Your task to perform on an android device: open app "WhatsApp Messenger" Image 0: 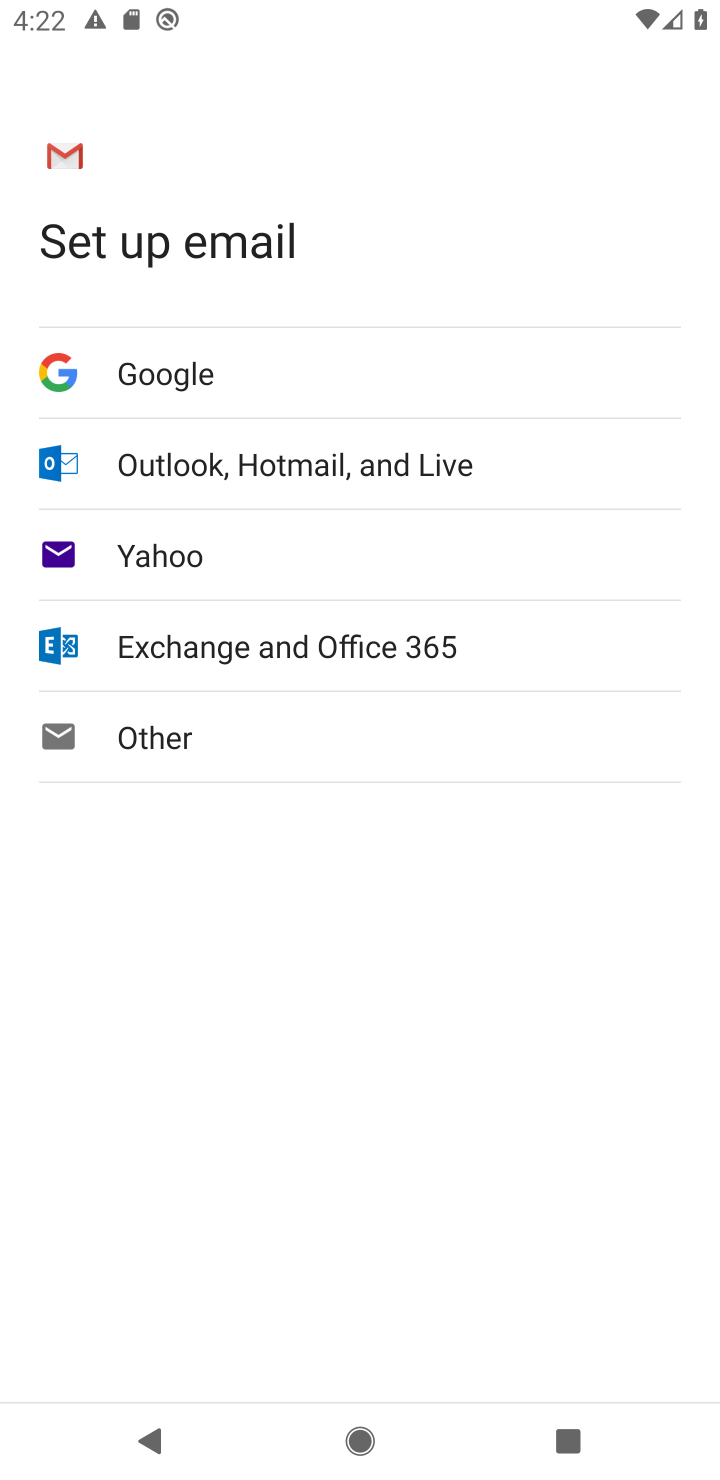
Step 0: press back button
Your task to perform on an android device: open app "WhatsApp Messenger" Image 1: 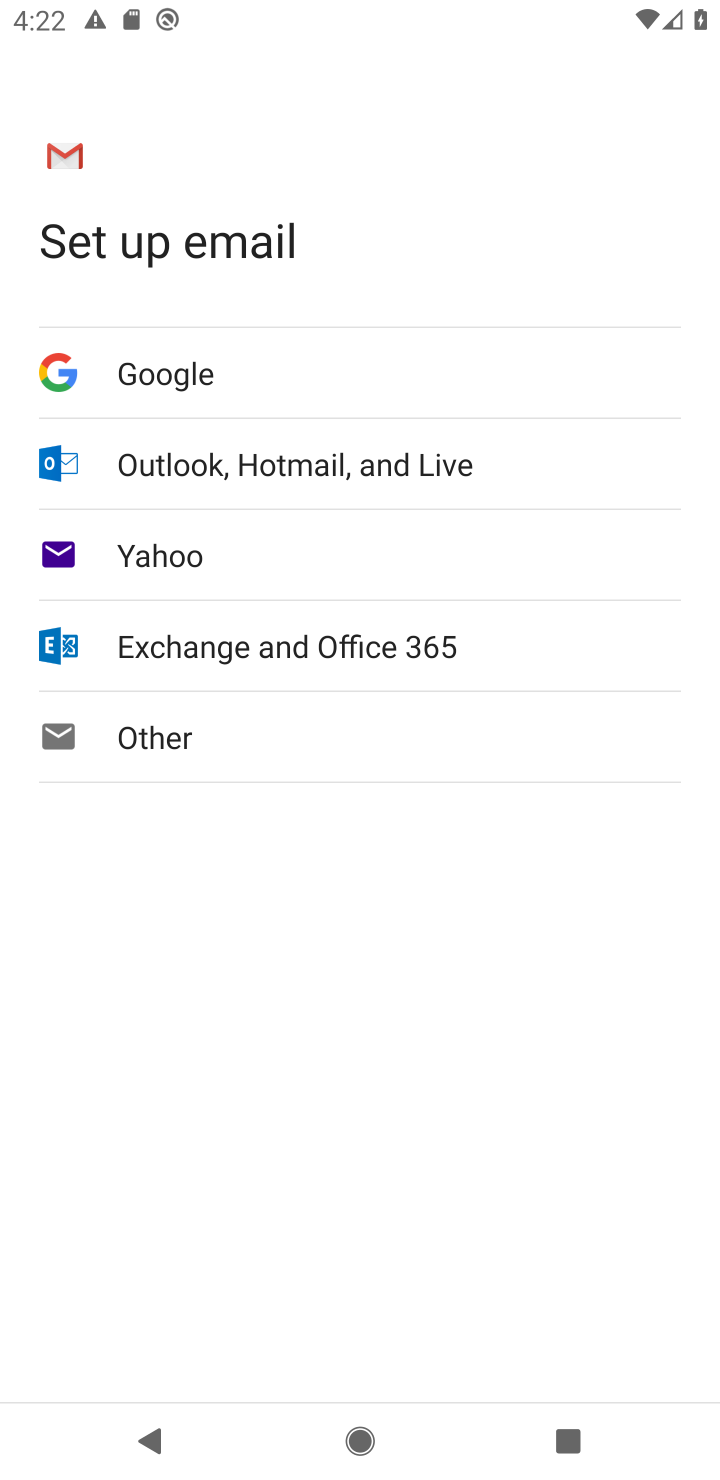
Step 1: press back button
Your task to perform on an android device: open app "WhatsApp Messenger" Image 2: 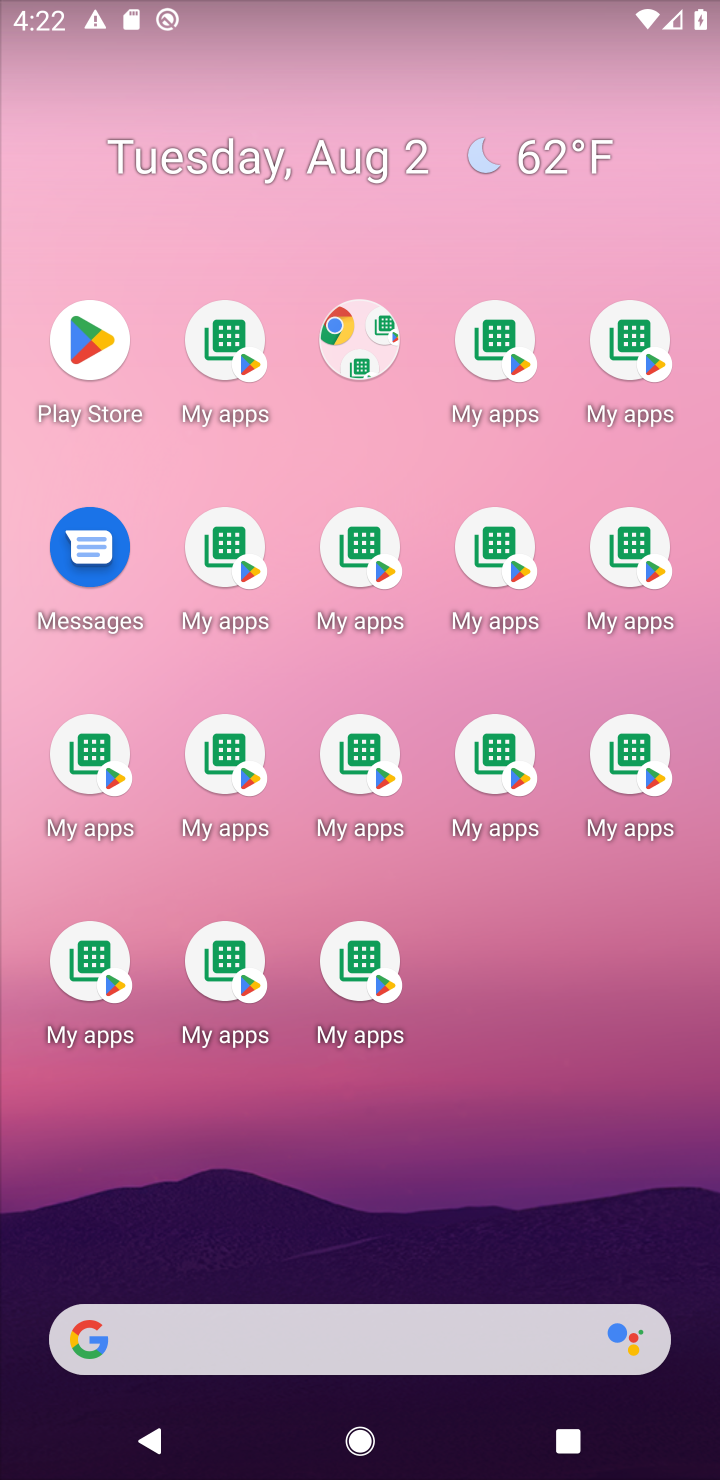
Step 2: drag from (94, 350) to (612, 202)
Your task to perform on an android device: open app "WhatsApp Messenger" Image 3: 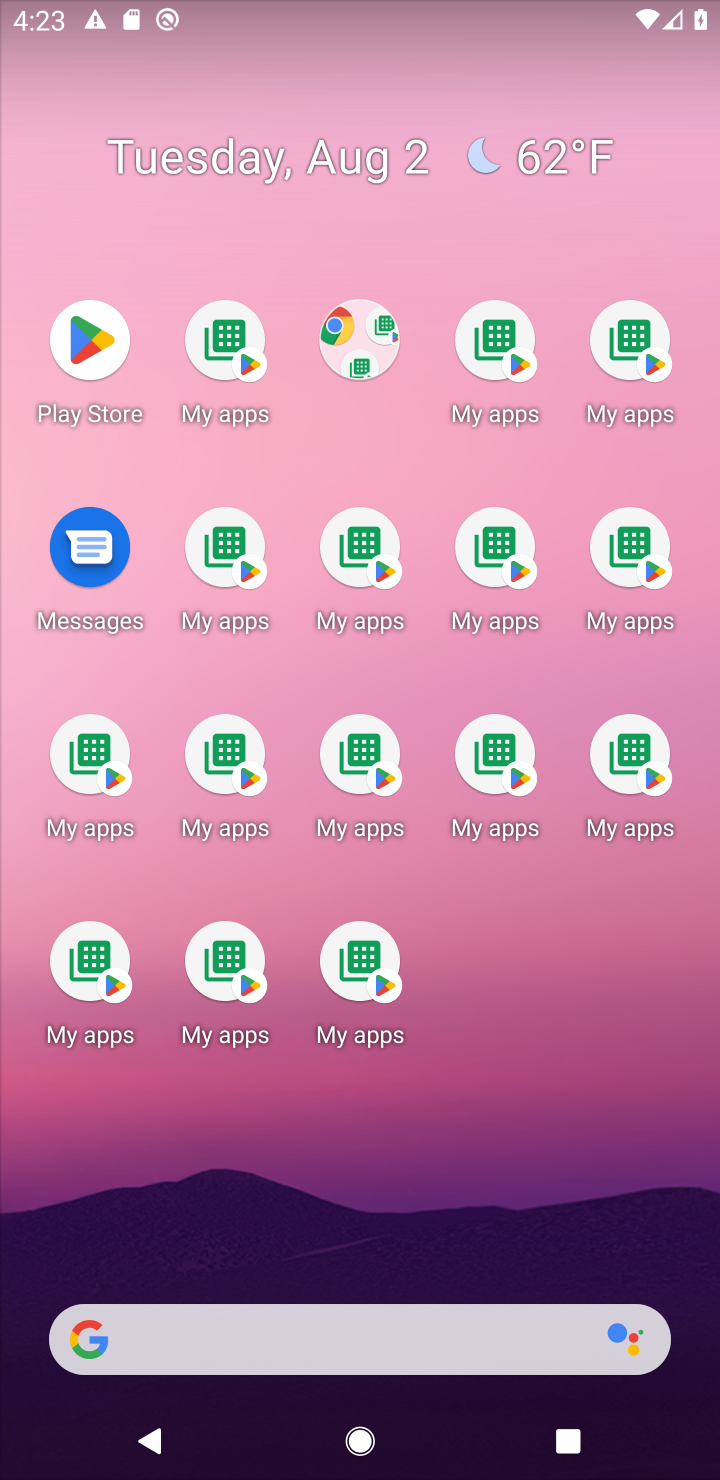
Step 3: drag from (364, 1154) to (386, 182)
Your task to perform on an android device: open app "WhatsApp Messenger" Image 4: 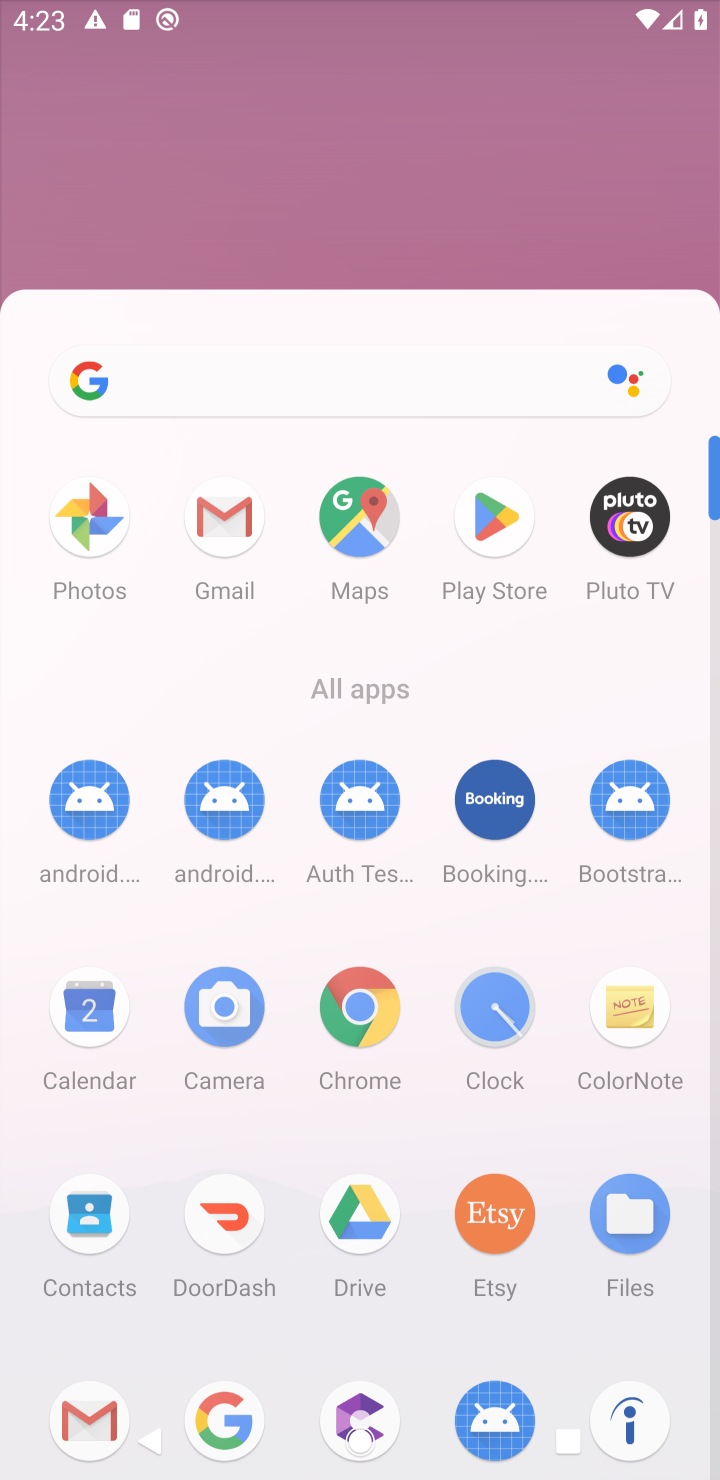
Step 4: drag from (458, 123) to (329, 30)
Your task to perform on an android device: open app "WhatsApp Messenger" Image 5: 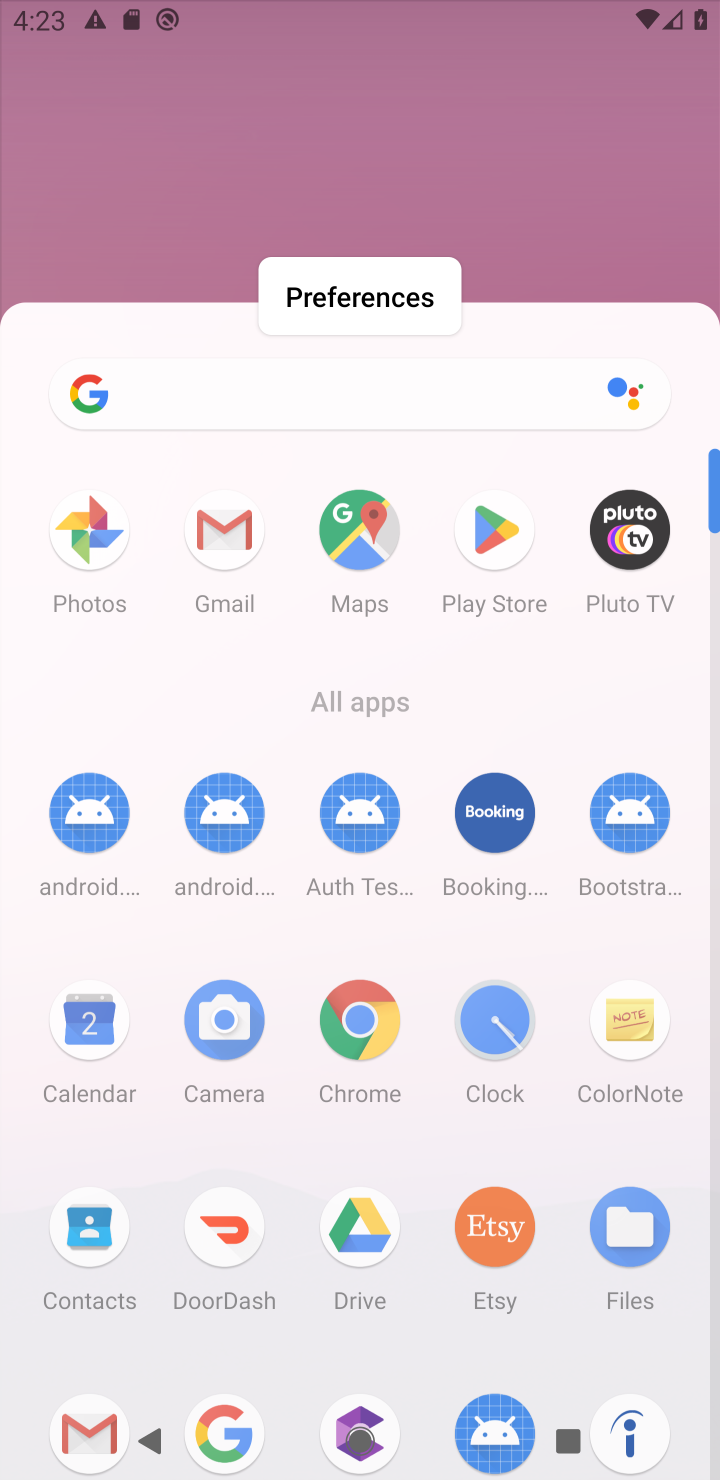
Step 5: click (488, 241)
Your task to perform on an android device: open app "WhatsApp Messenger" Image 6: 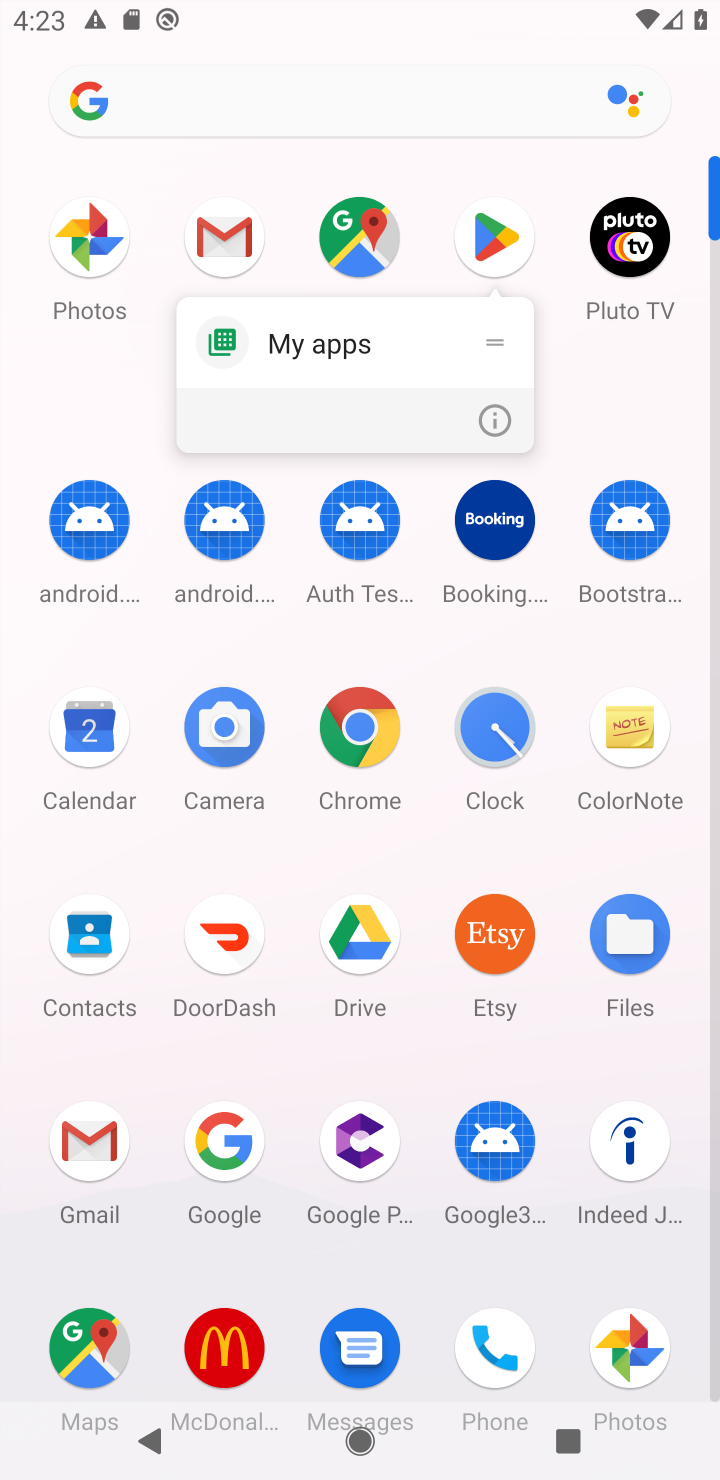
Step 6: click (404, 343)
Your task to perform on an android device: open app "WhatsApp Messenger" Image 7: 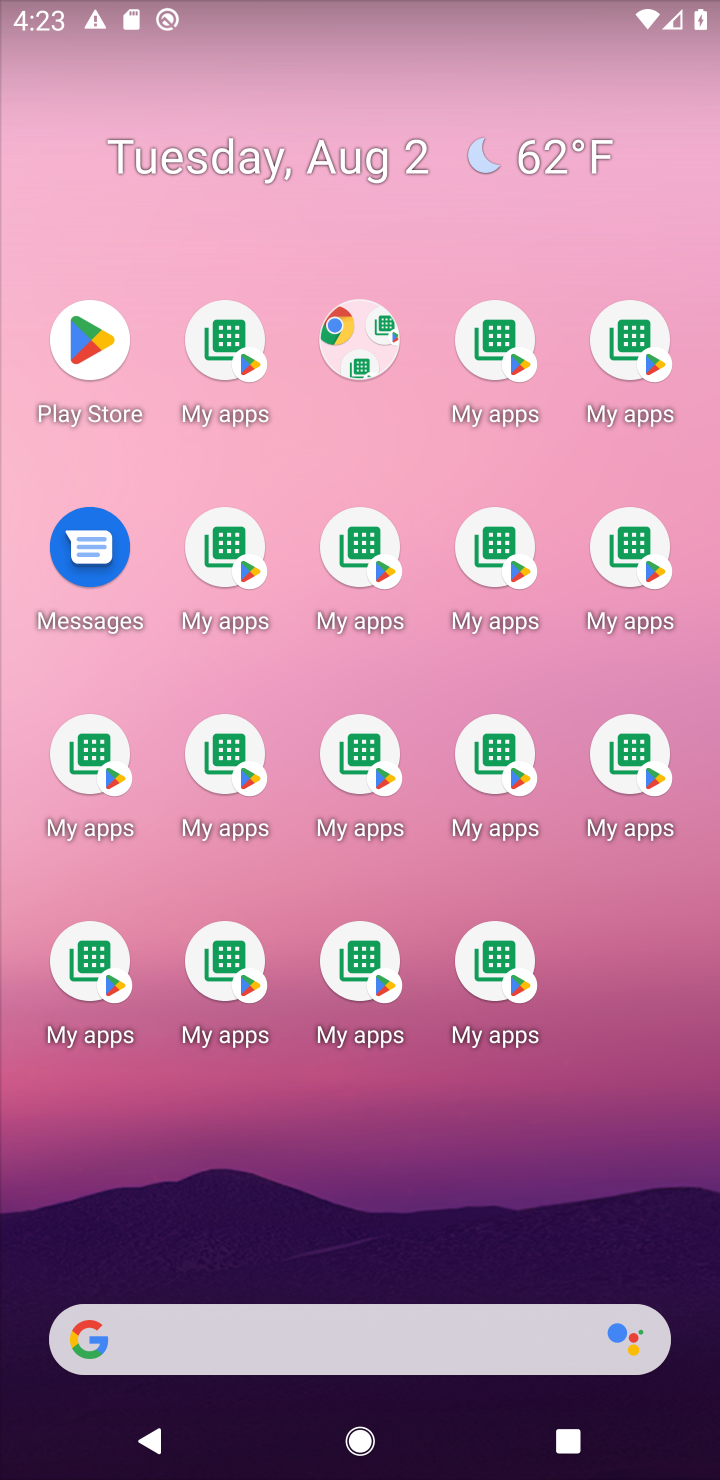
Step 7: click (108, 362)
Your task to perform on an android device: open app "WhatsApp Messenger" Image 8: 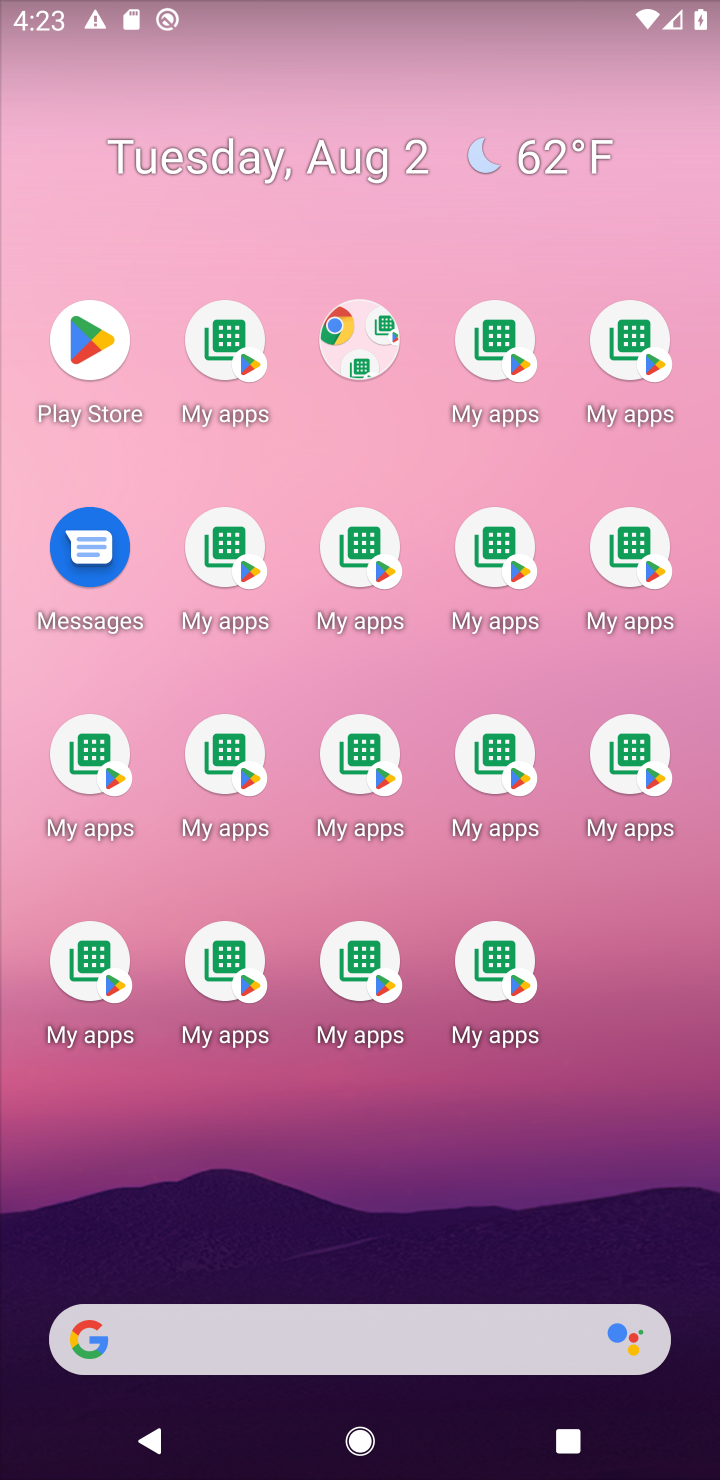
Step 8: click (63, 340)
Your task to perform on an android device: open app "WhatsApp Messenger" Image 9: 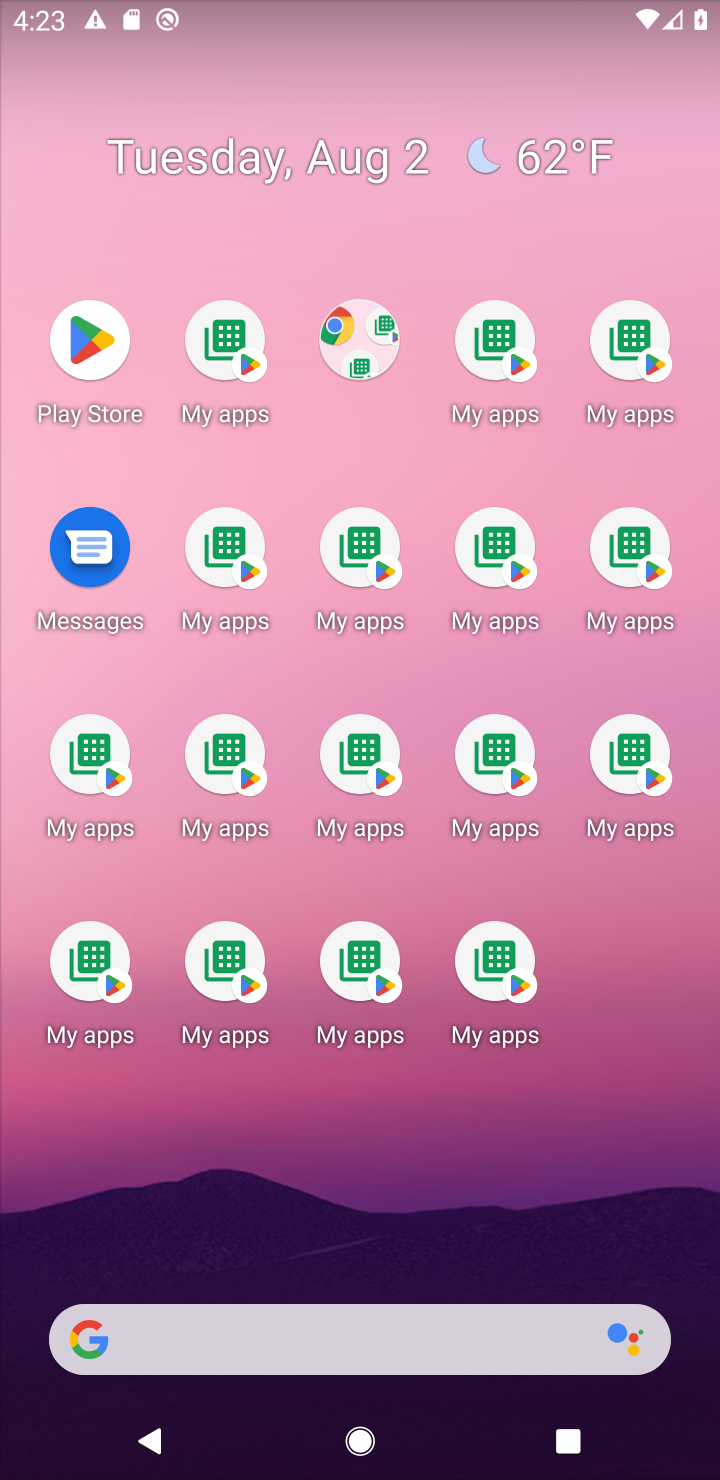
Step 9: click (80, 345)
Your task to perform on an android device: open app "WhatsApp Messenger" Image 10: 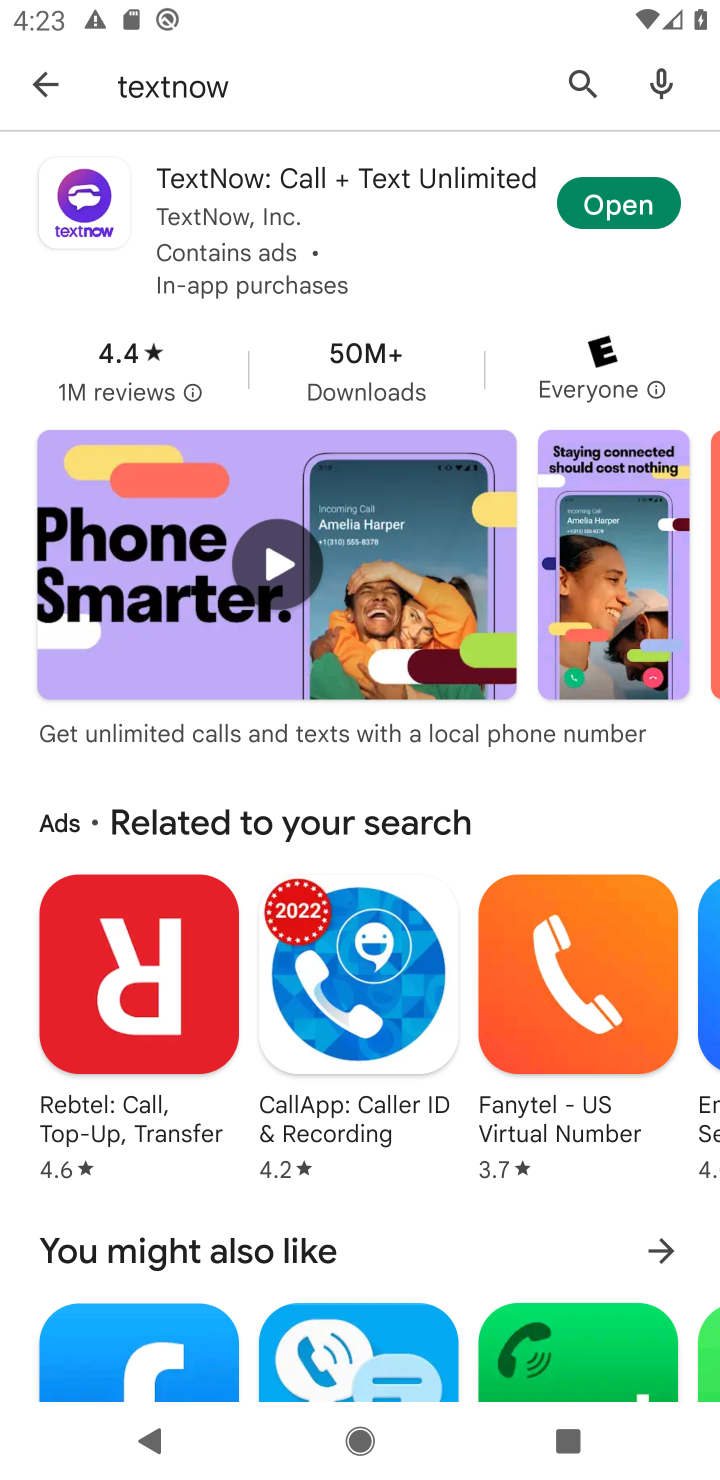
Step 10: click (576, 80)
Your task to perform on an android device: open app "WhatsApp Messenger" Image 11: 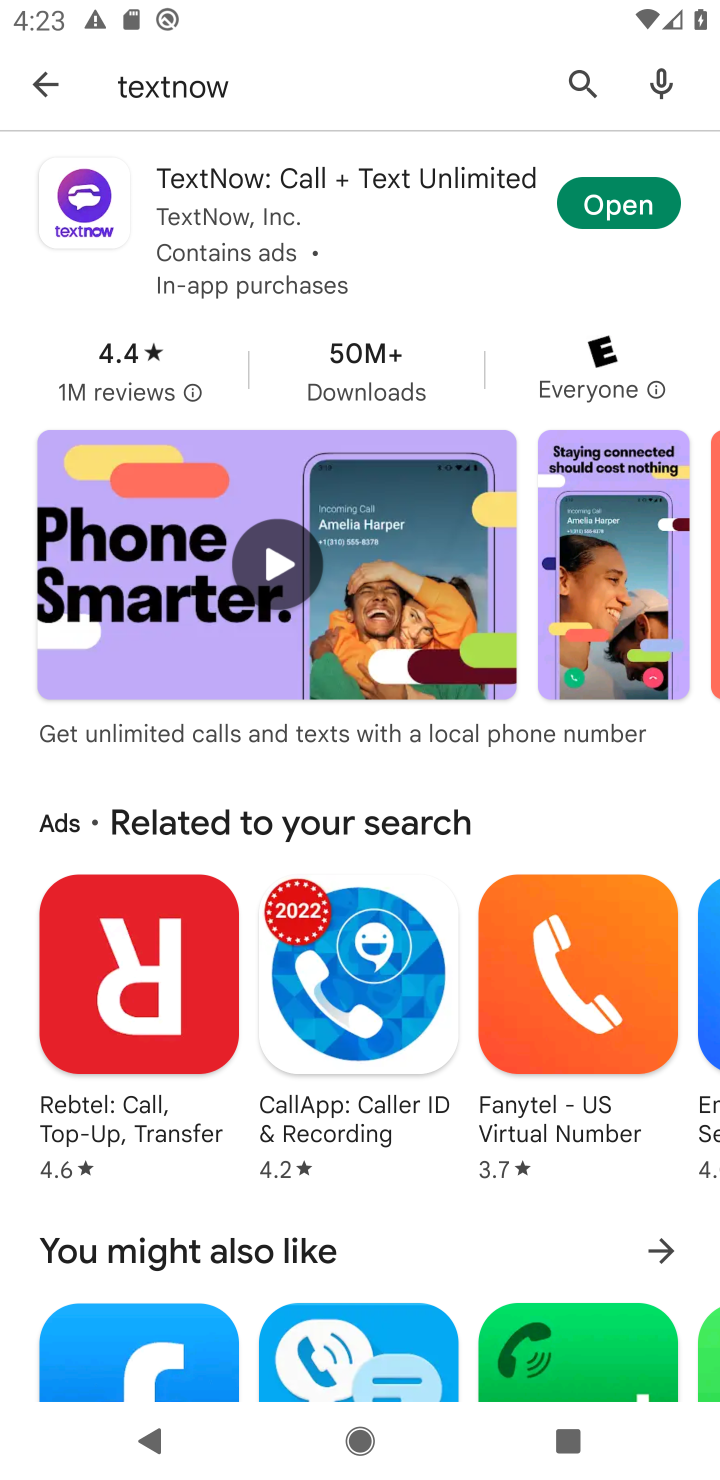
Step 11: click (579, 80)
Your task to perform on an android device: open app "WhatsApp Messenger" Image 12: 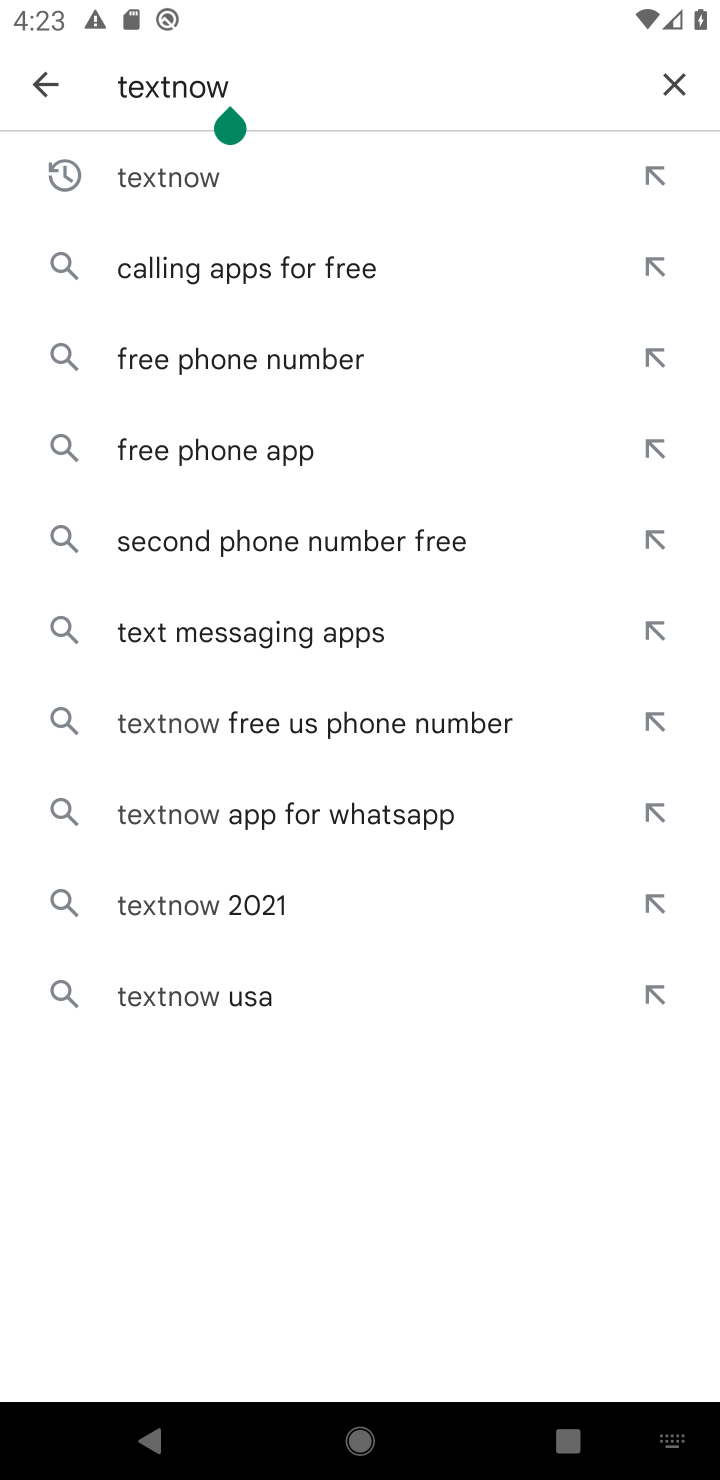
Step 12: click (669, 82)
Your task to perform on an android device: open app "WhatsApp Messenger" Image 13: 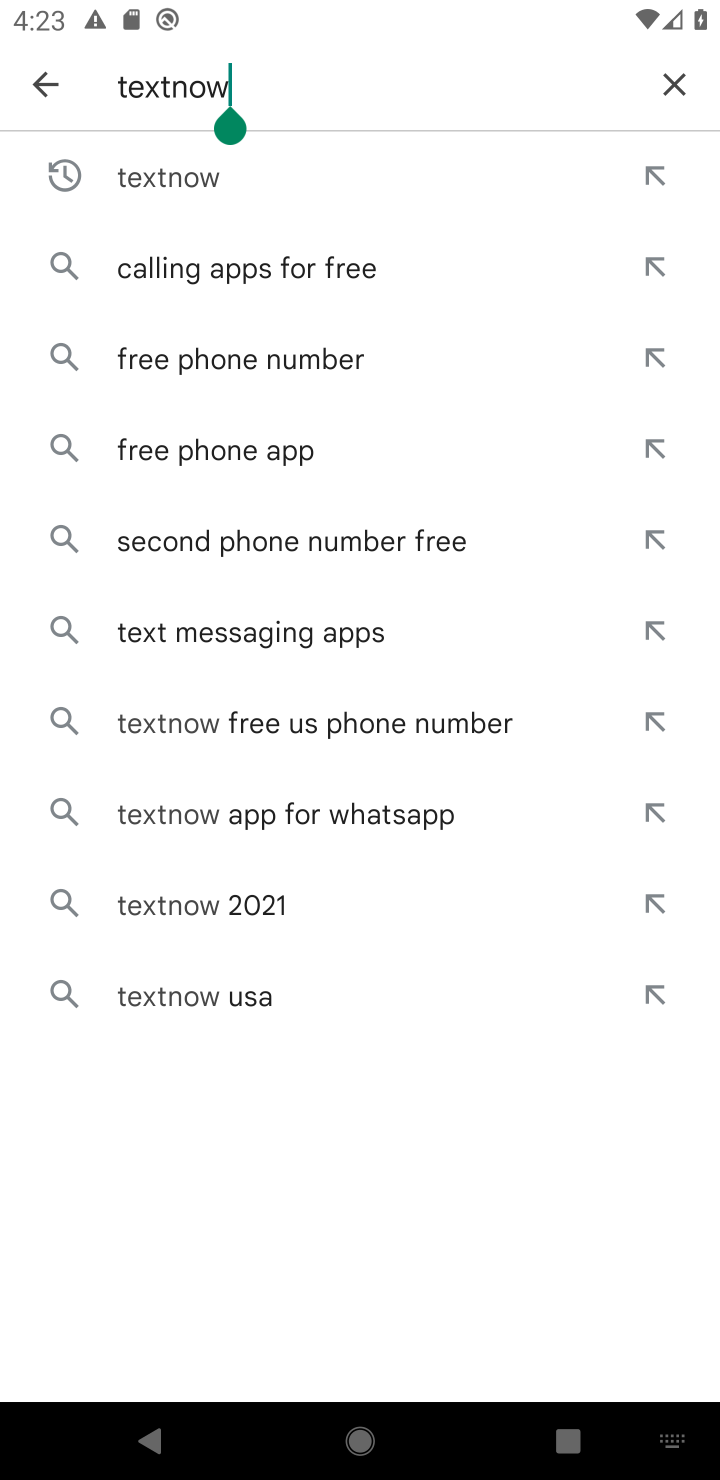
Step 13: click (669, 82)
Your task to perform on an android device: open app "WhatsApp Messenger" Image 14: 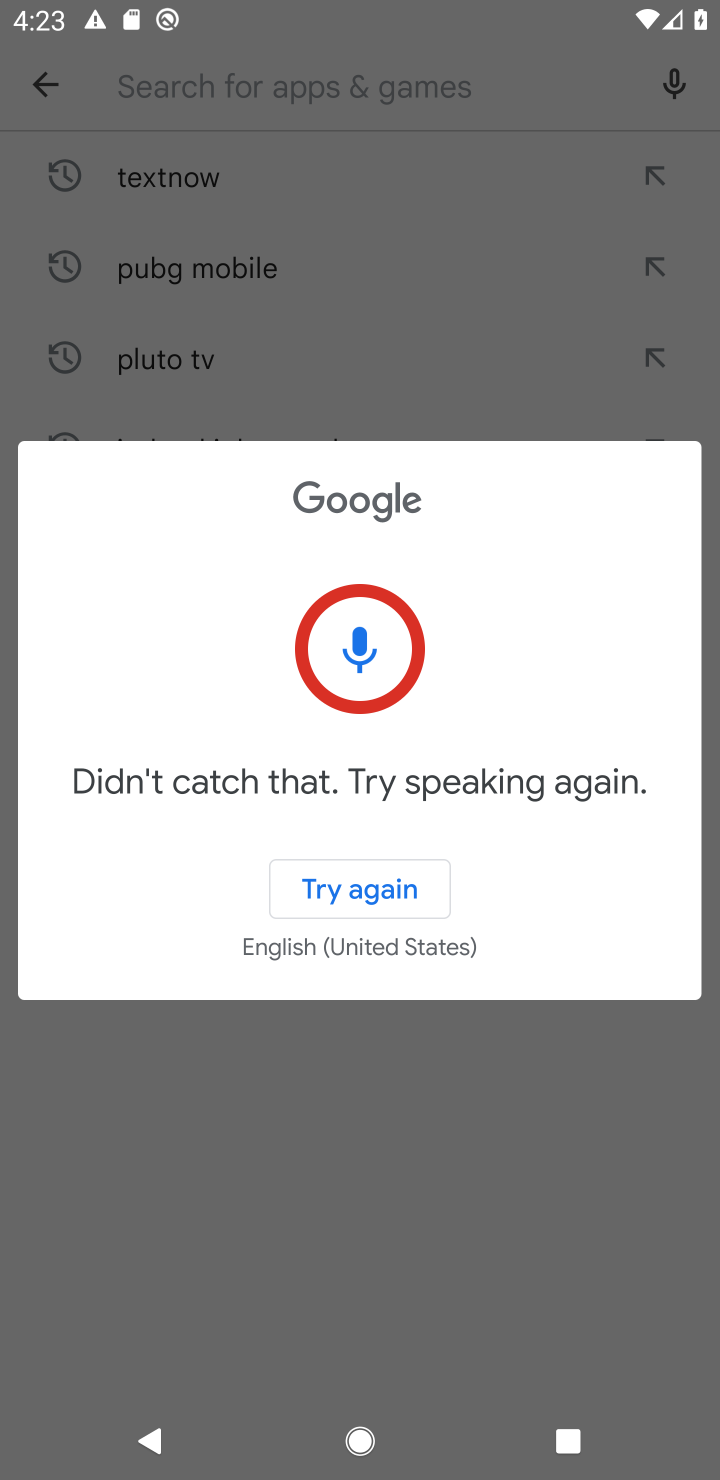
Step 14: click (209, 89)
Your task to perform on an android device: open app "WhatsApp Messenger" Image 15: 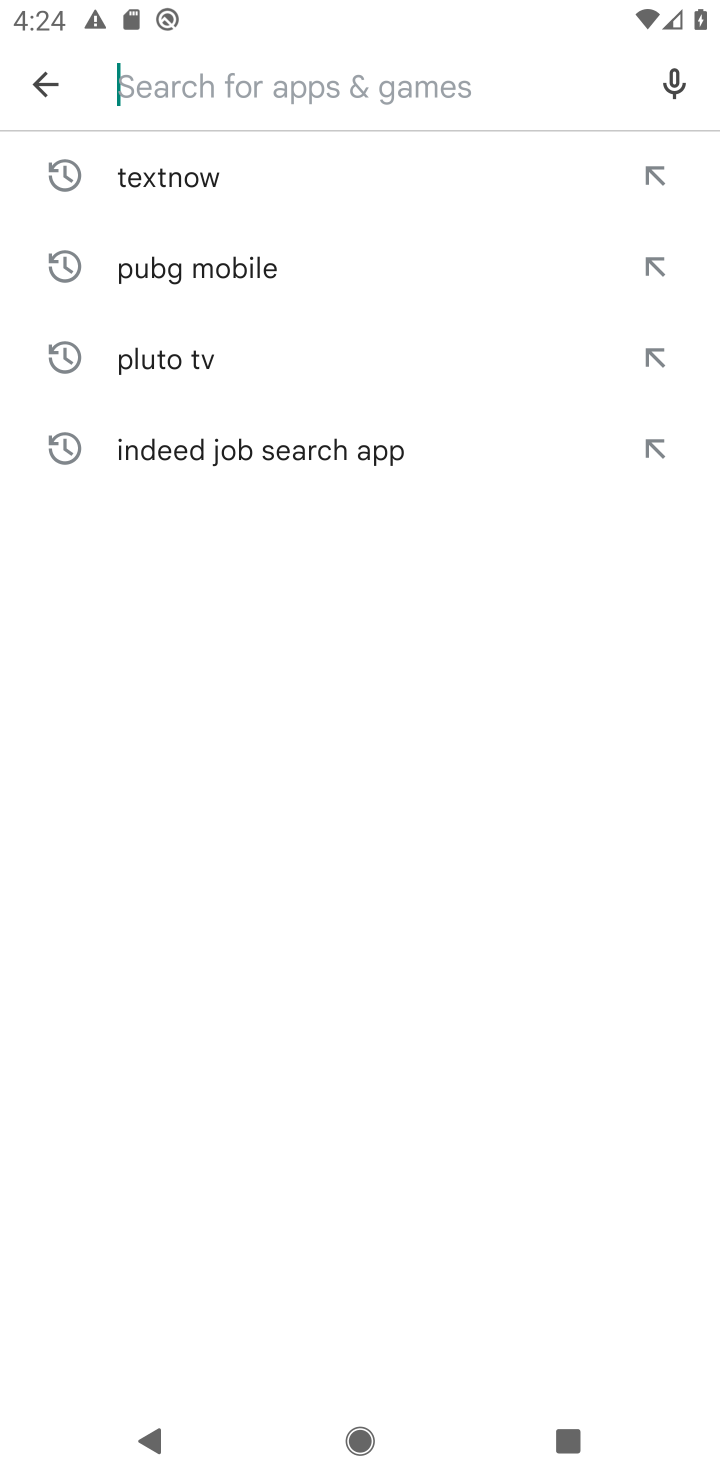
Step 15: type "whatsapp messenger"
Your task to perform on an android device: open app "WhatsApp Messenger" Image 16: 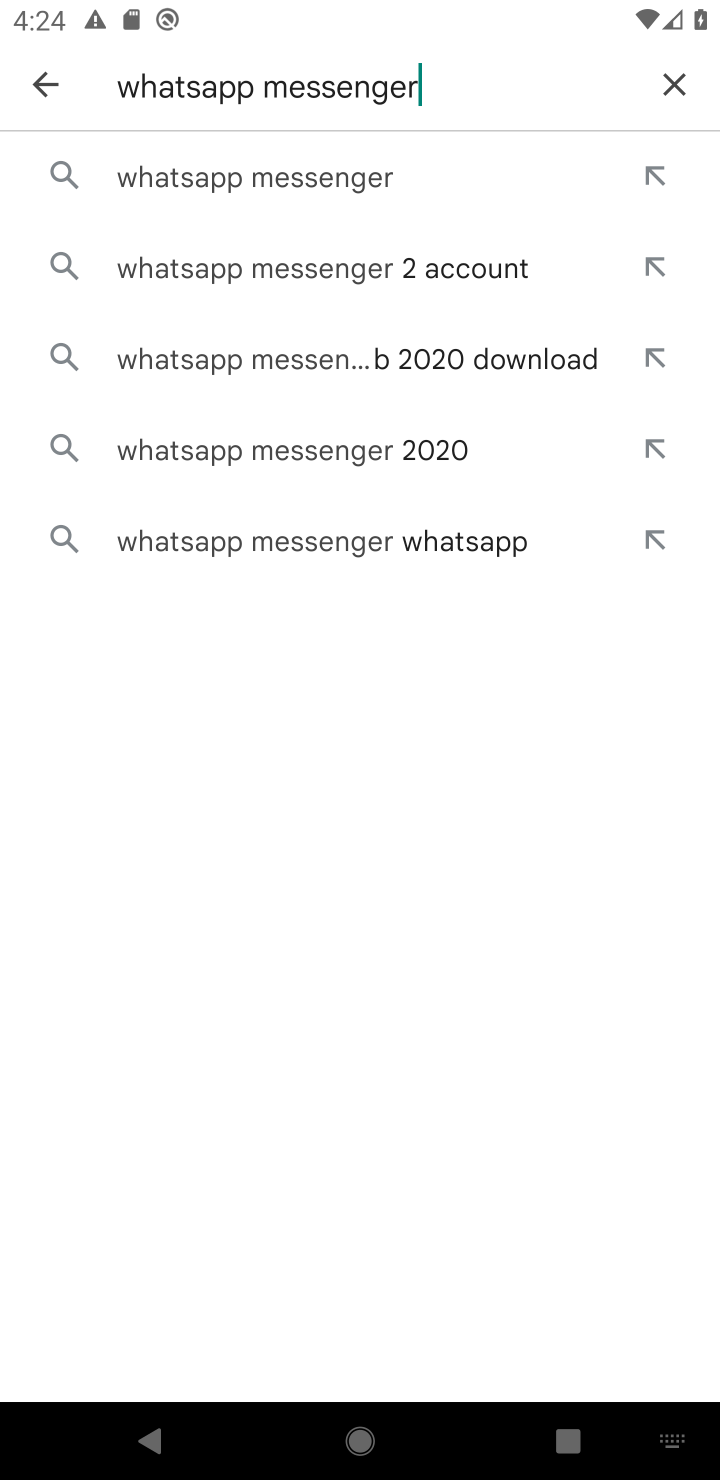
Step 16: click (318, 172)
Your task to perform on an android device: open app "WhatsApp Messenger" Image 17: 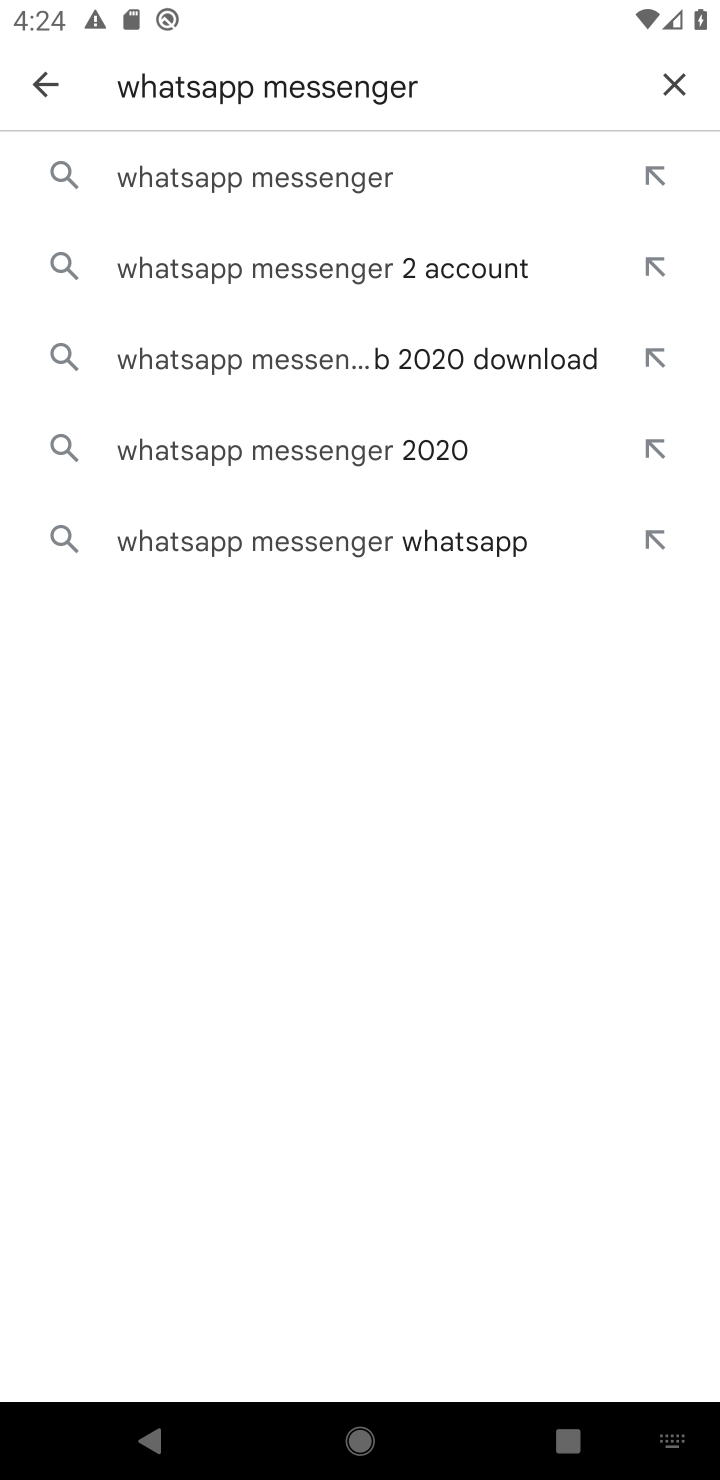
Step 17: click (318, 174)
Your task to perform on an android device: open app "WhatsApp Messenger" Image 18: 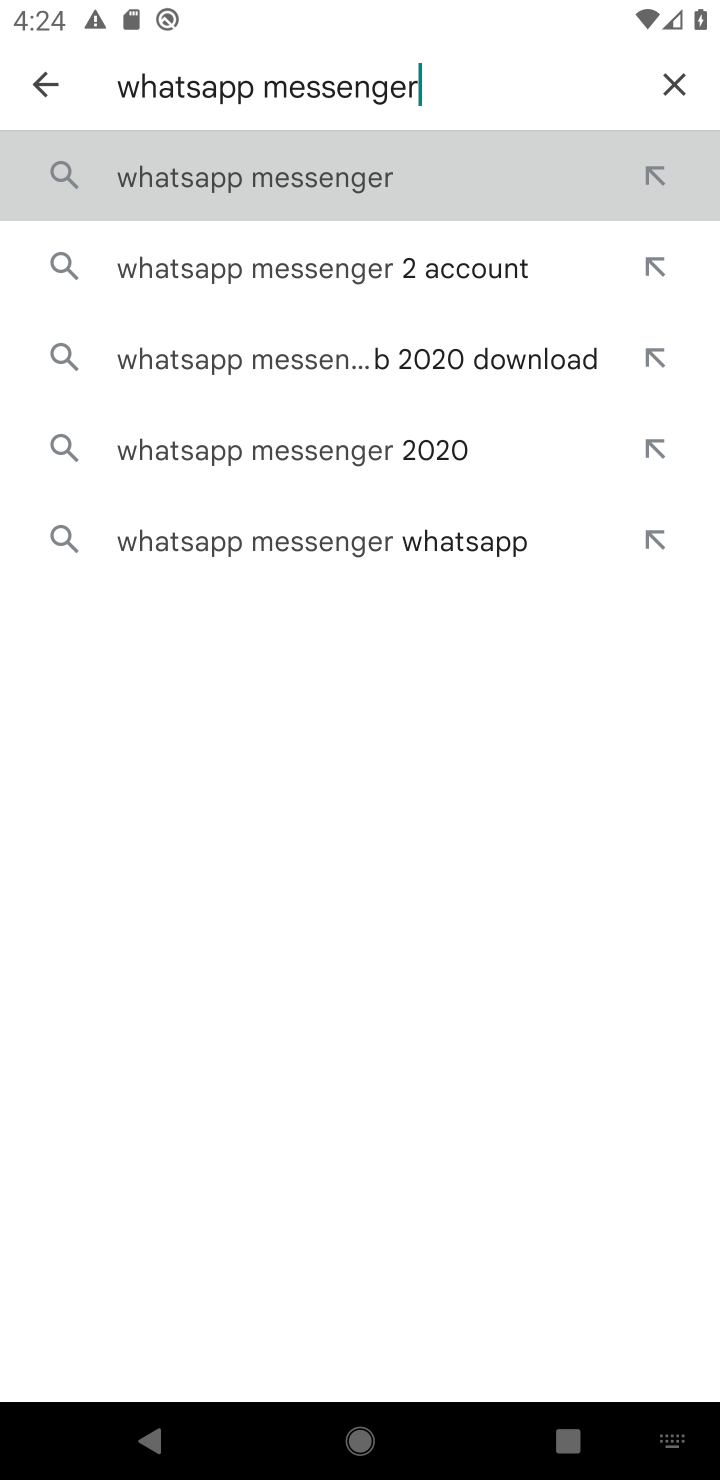
Step 18: click (318, 175)
Your task to perform on an android device: open app "WhatsApp Messenger" Image 19: 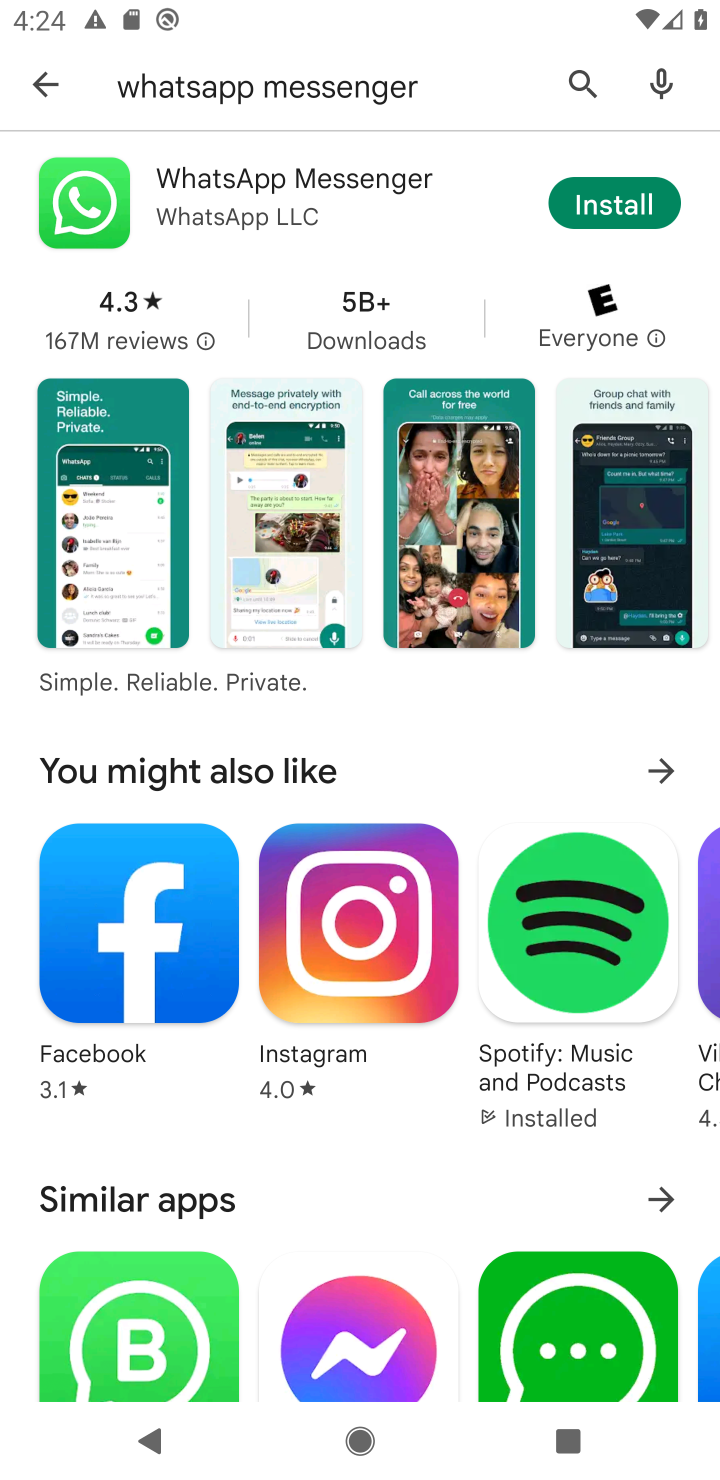
Step 19: click (637, 223)
Your task to perform on an android device: open app "WhatsApp Messenger" Image 20: 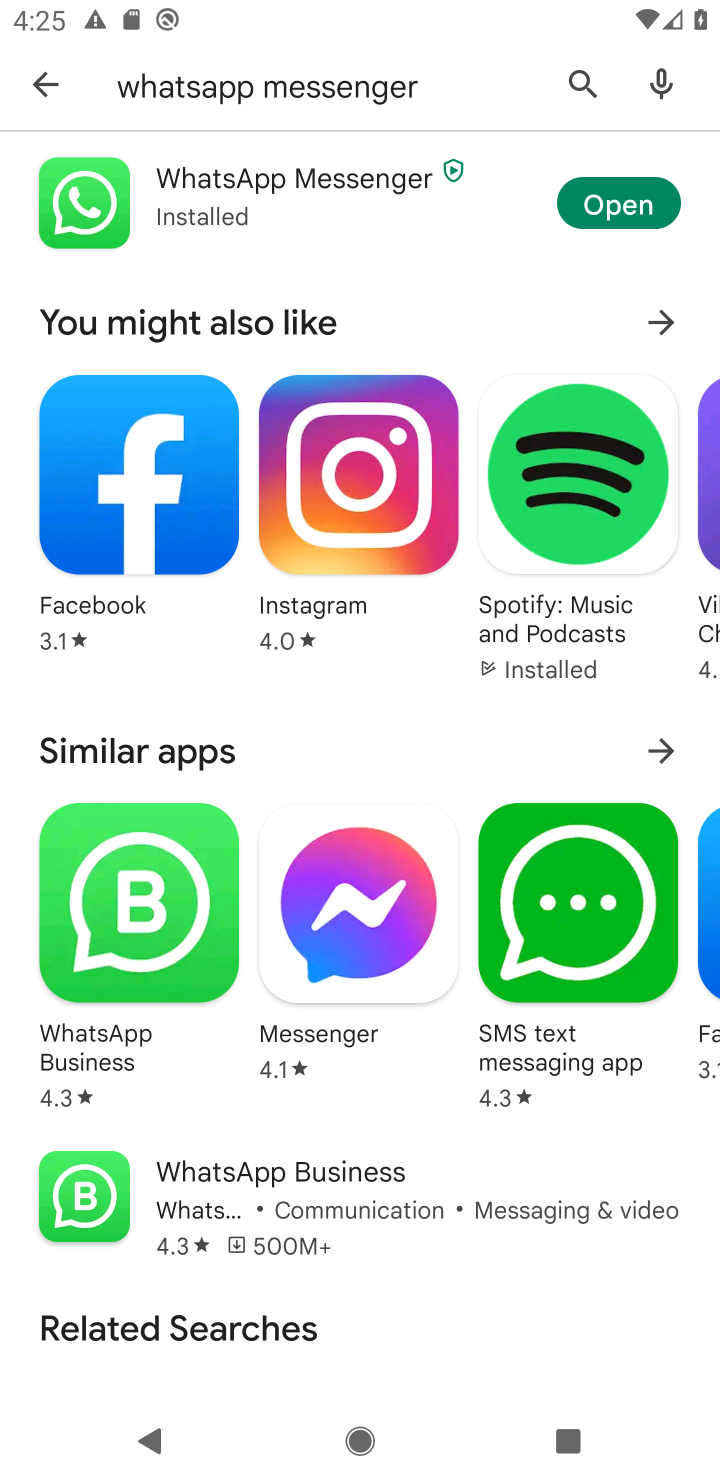
Step 20: click (591, 282)
Your task to perform on an android device: open app "WhatsApp Messenger" Image 21: 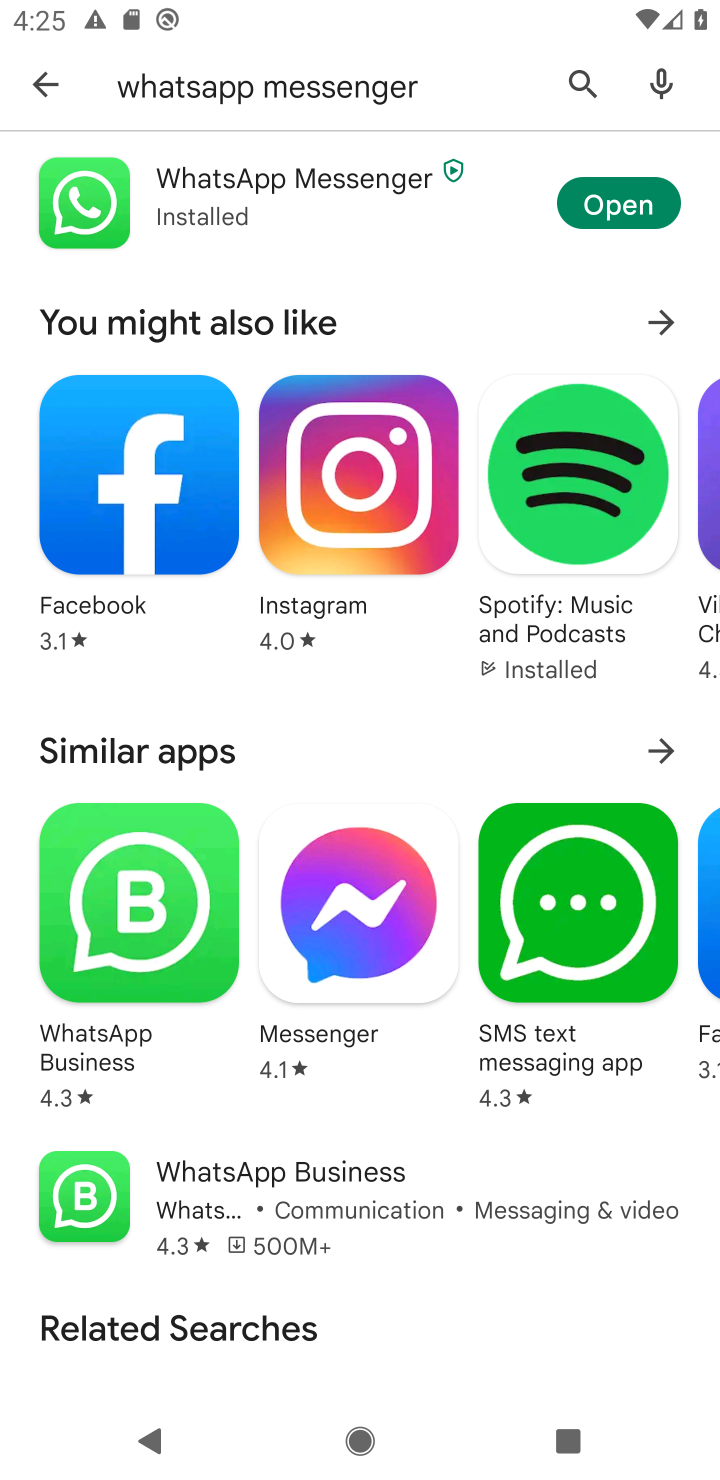
Step 21: click (581, 200)
Your task to perform on an android device: open app "WhatsApp Messenger" Image 22: 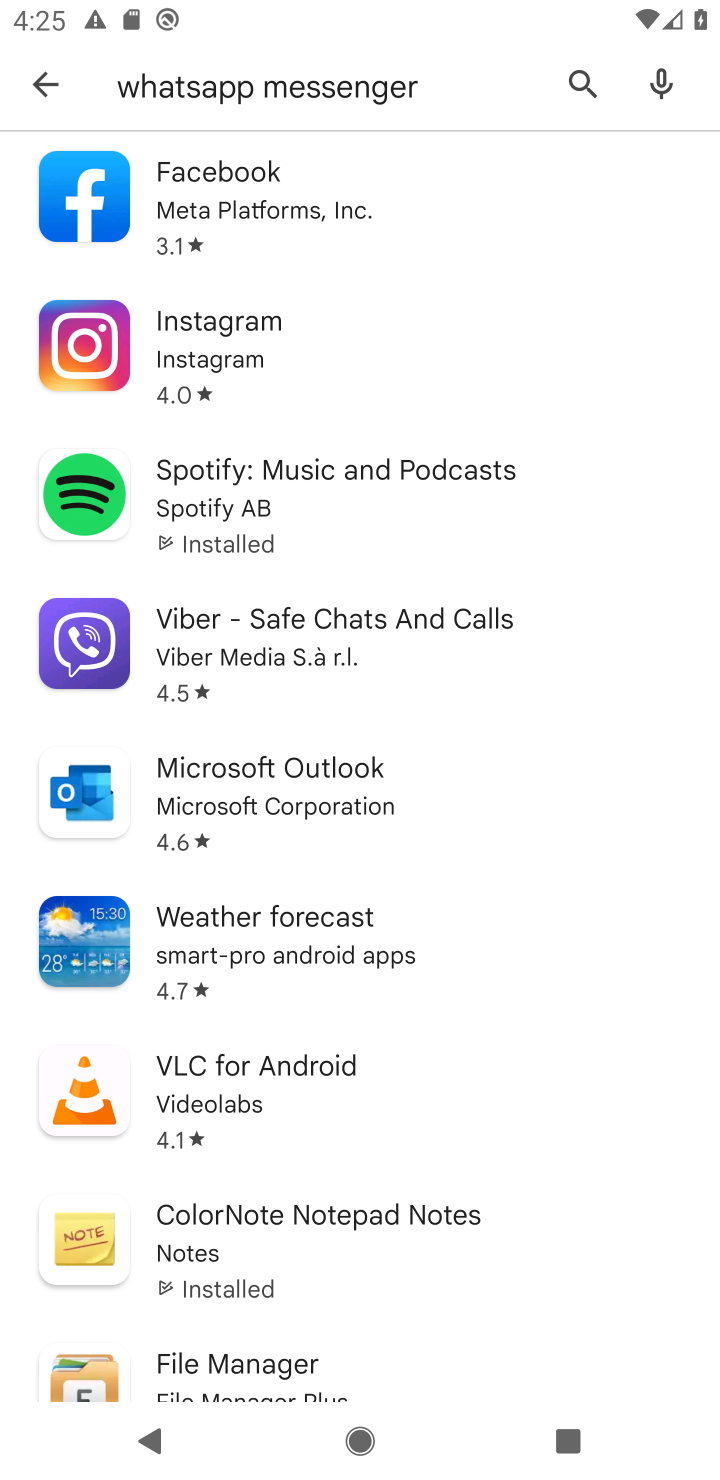
Step 22: task complete